Your task to perform on an android device: Go to CNN.com Image 0: 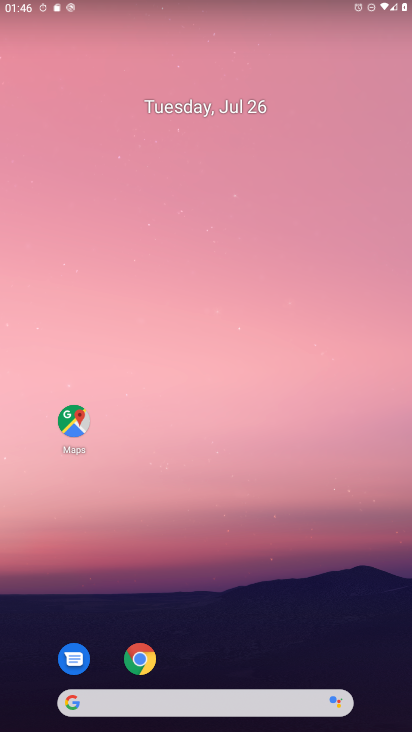
Step 0: press home button
Your task to perform on an android device: Go to CNN.com Image 1: 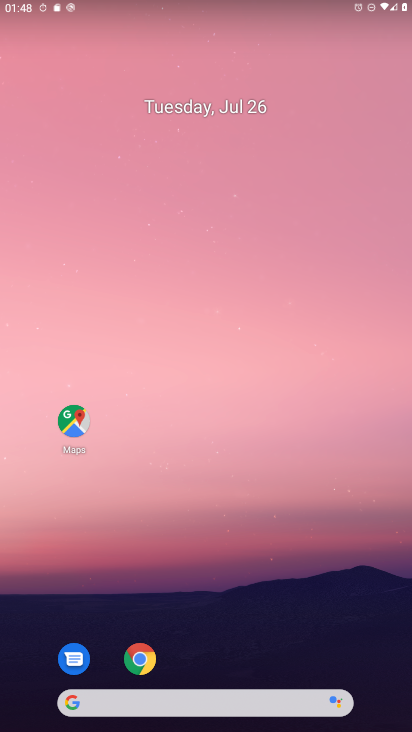
Step 1: click (128, 671)
Your task to perform on an android device: Go to CNN.com Image 2: 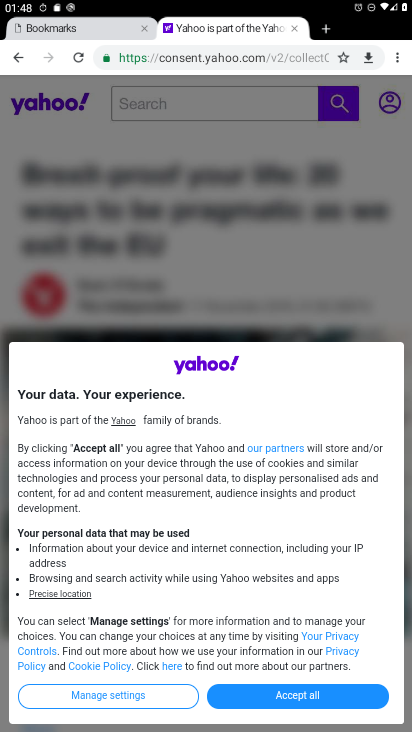
Step 2: click (234, 54)
Your task to perform on an android device: Go to CNN.com Image 3: 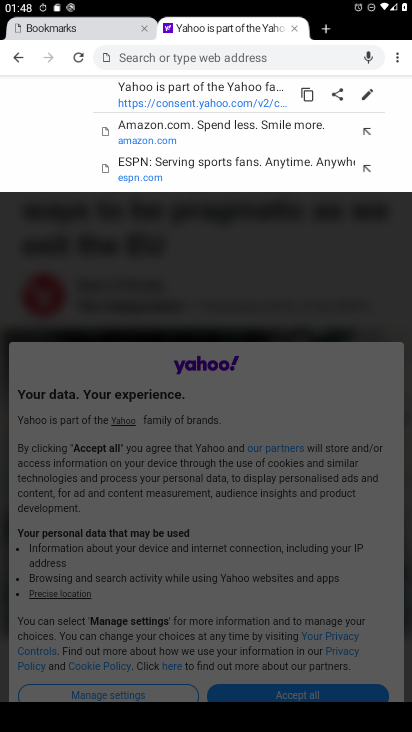
Step 3: type "CNN"
Your task to perform on an android device: Go to CNN.com Image 4: 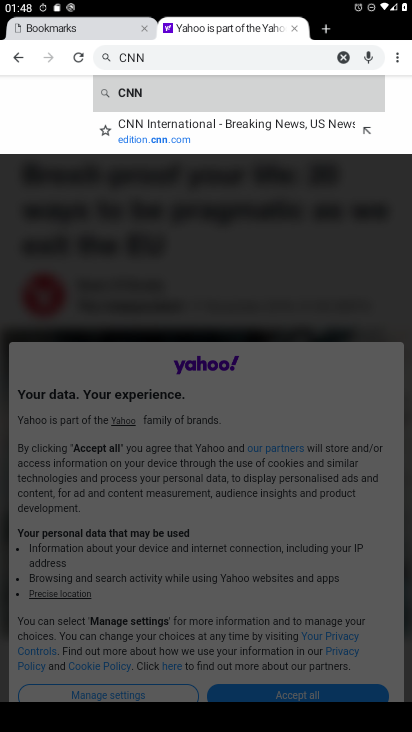
Step 4: click (317, 128)
Your task to perform on an android device: Go to CNN.com Image 5: 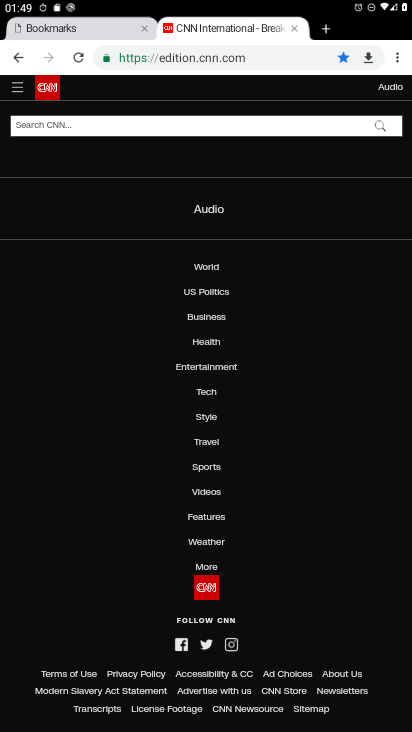
Step 5: task complete